Your task to perform on an android device: Go to Google Image 0: 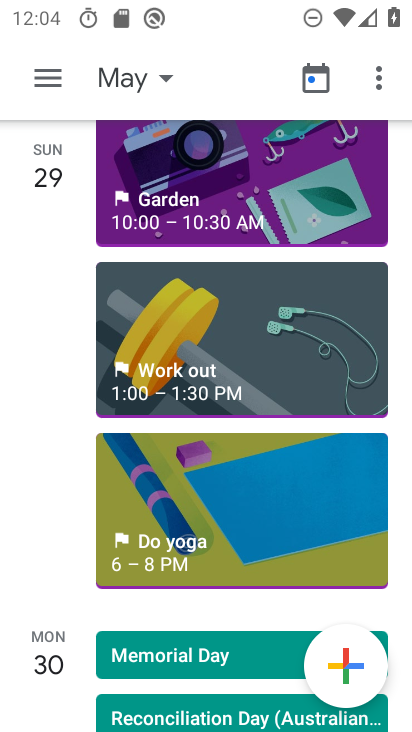
Step 0: press home button
Your task to perform on an android device: Go to Google Image 1: 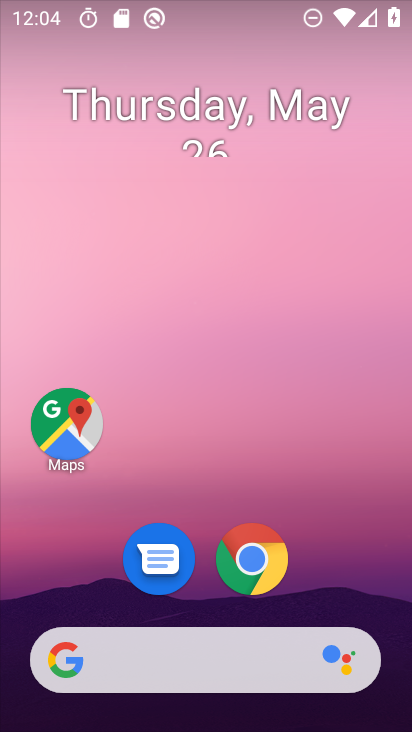
Step 1: drag from (379, 572) to (317, 192)
Your task to perform on an android device: Go to Google Image 2: 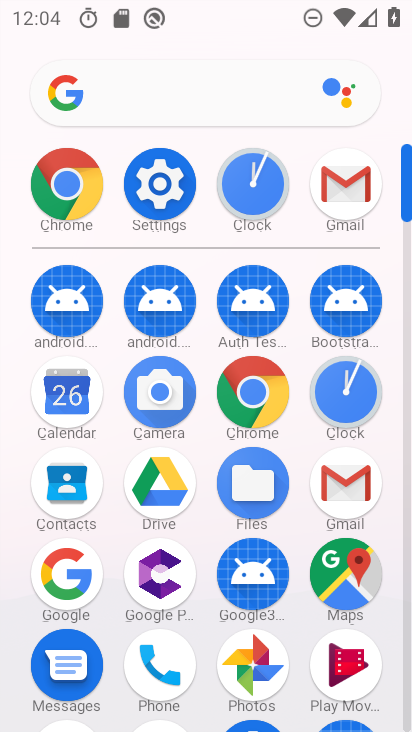
Step 2: click (60, 589)
Your task to perform on an android device: Go to Google Image 3: 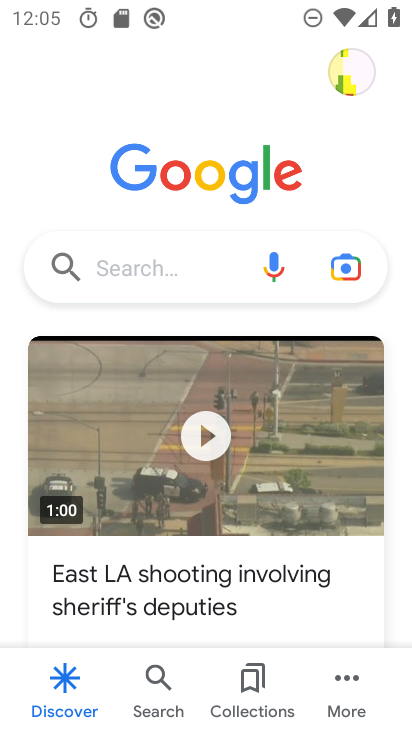
Step 3: task complete